Your task to perform on an android device: View the shopping cart on walmart. Add "logitech g903" to the cart on walmart Image 0: 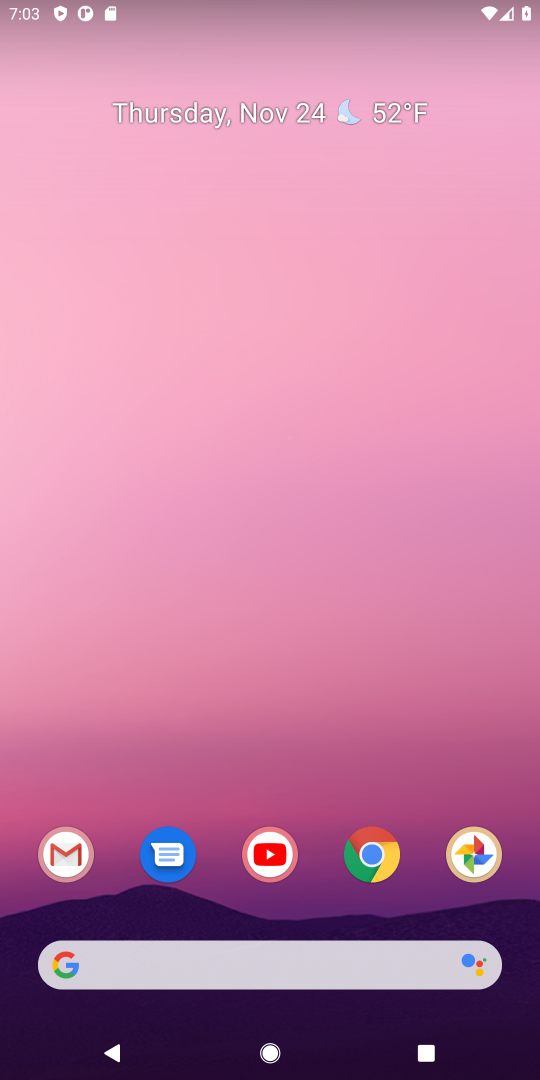
Step 0: click (368, 860)
Your task to perform on an android device: View the shopping cart on walmart. Add "logitech g903" to the cart on walmart Image 1: 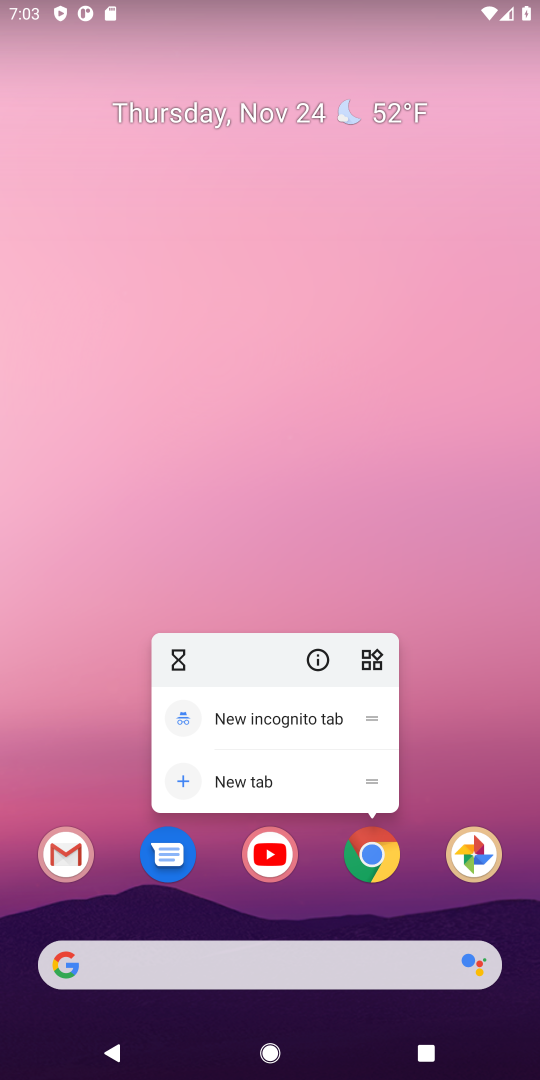
Step 1: click (368, 860)
Your task to perform on an android device: View the shopping cart on walmart. Add "logitech g903" to the cart on walmart Image 2: 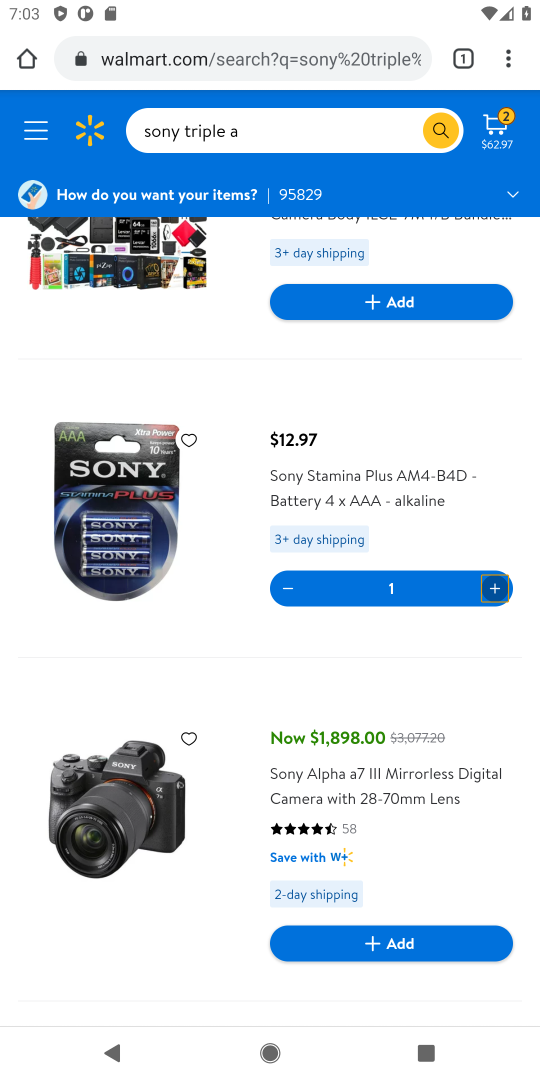
Step 2: click (500, 129)
Your task to perform on an android device: View the shopping cart on walmart. Add "logitech g903" to the cart on walmart Image 3: 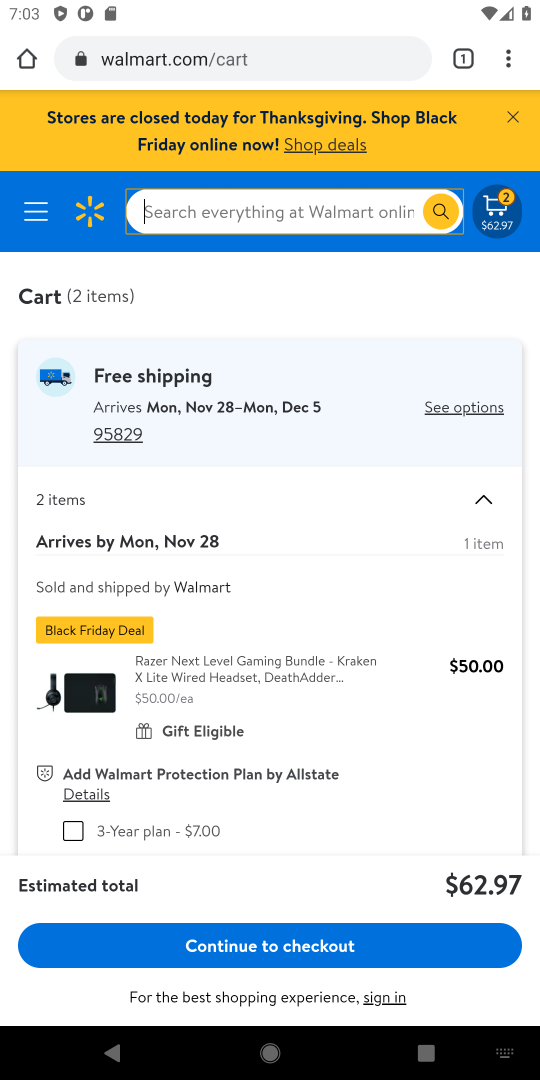
Step 3: type "logitech g903"
Your task to perform on an android device: View the shopping cart on walmart. Add "logitech g903" to the cart on walmart Image 4: 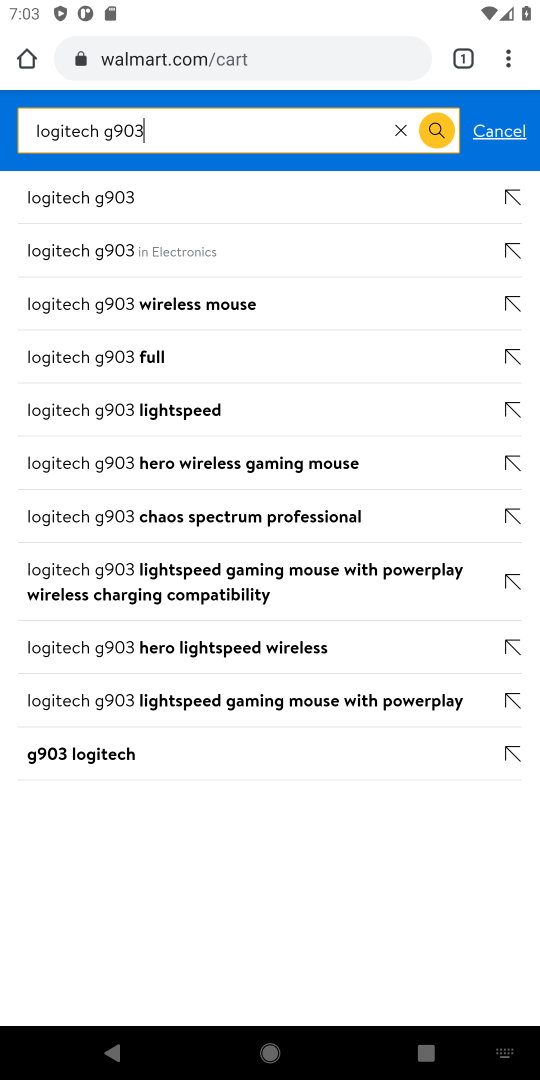
Step 4: click (117, 206)
Your task to perform on an android device: View the shopping cart on walmart. Add "logitech g903" to the cart on walmart Image 5: 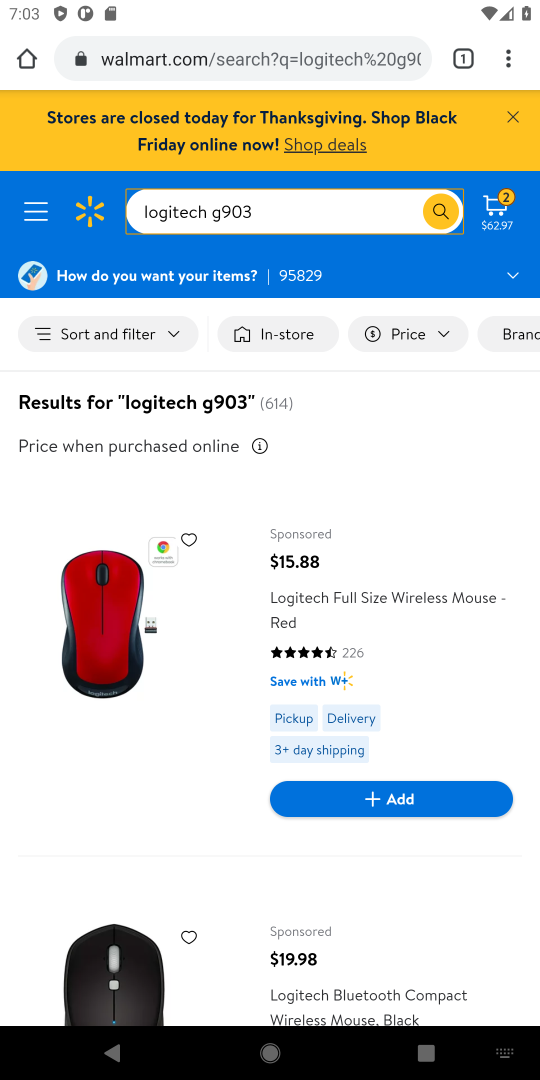
Step 5: drag from (234, 737) to (232, 491)
Your task to perform on an android device: View the shopping cart on walmart. Add "logitech g903" to the cart on walmart Image 6: 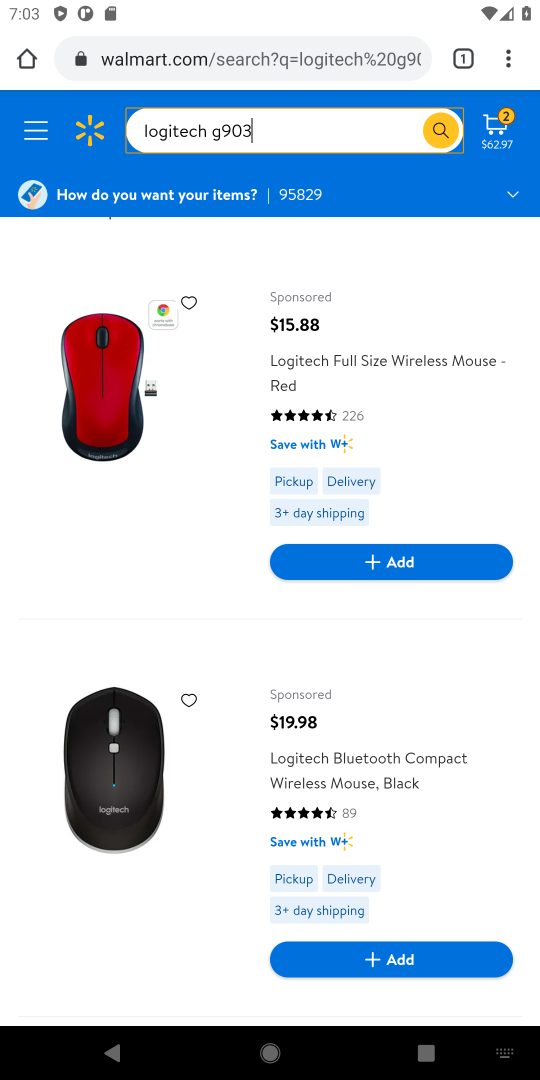
Step 6: drag from (161, 780) to (175, 493)
Your task to perform on an android device: View the shopping cart on walmart. Add "logitech g903" to the cart on walmart Image 7: 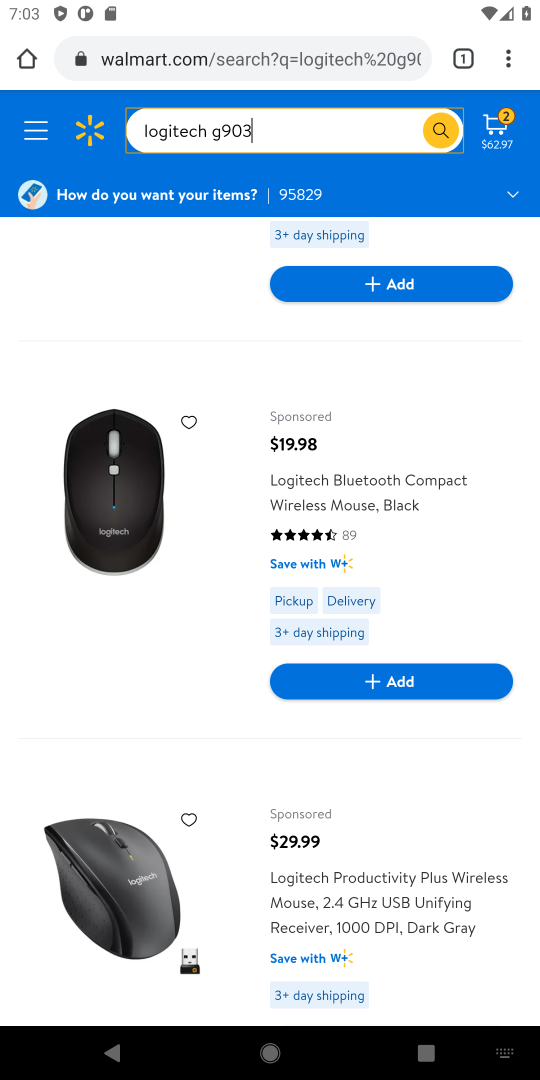
Step 7: drag from (173, 830) to (155, 456)
Your task to perform on an android device: View the shopping cart on walmart. Add "logitech g903" to the cart on walmart Image 8: 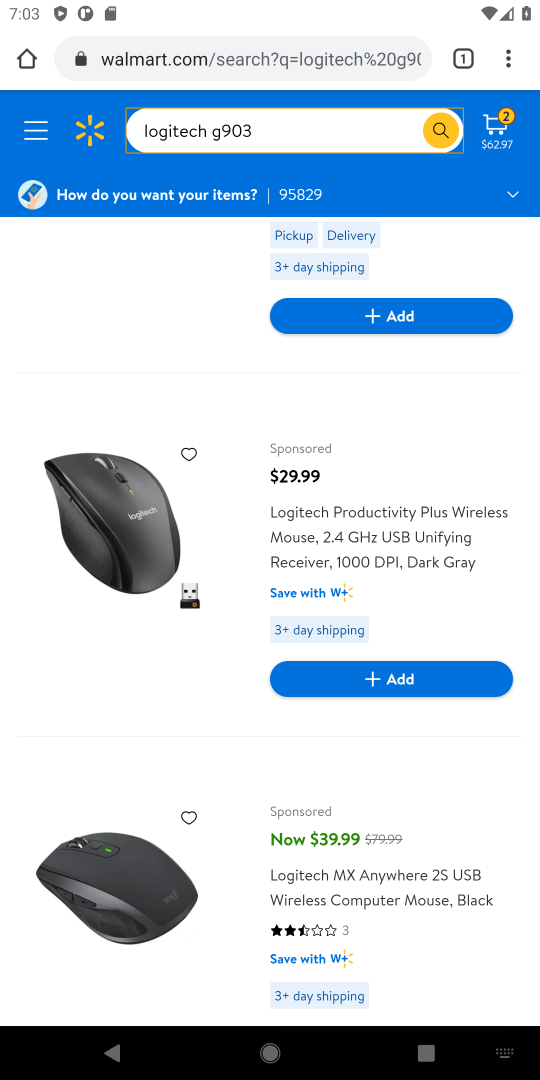
Step 8: drag from (199, 881) to (158, 608)
Your task to perform on an android device: View the shopping cart on walmart. Add "logitech g903" to the cart on walmart Image 9: 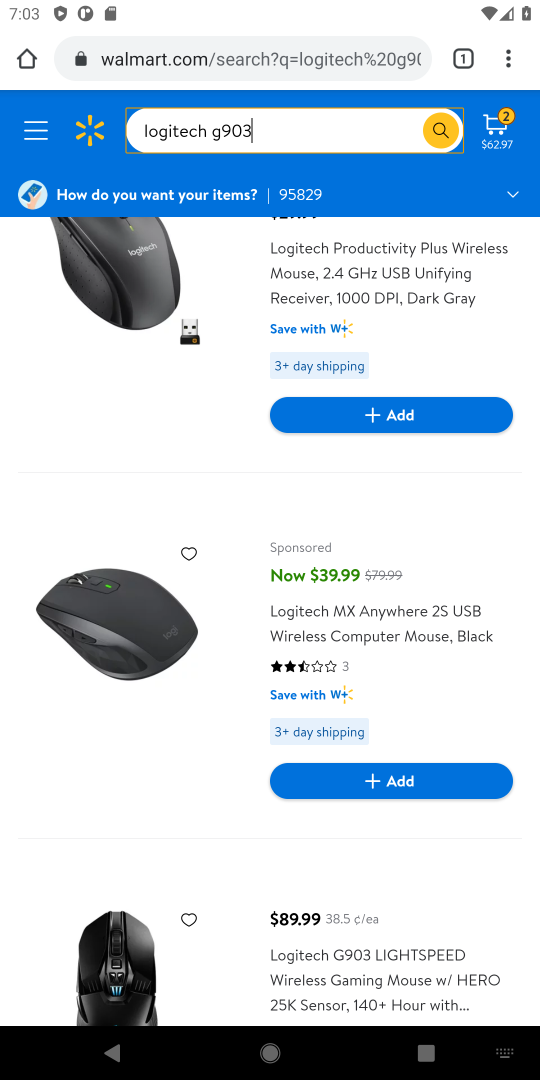
Step 9: drag from (168, 918) to (150, 561)
Your task to perform on an android device: View the shopping cart on walmart. Add "logitech g903" to the cart on walmart Image 10: 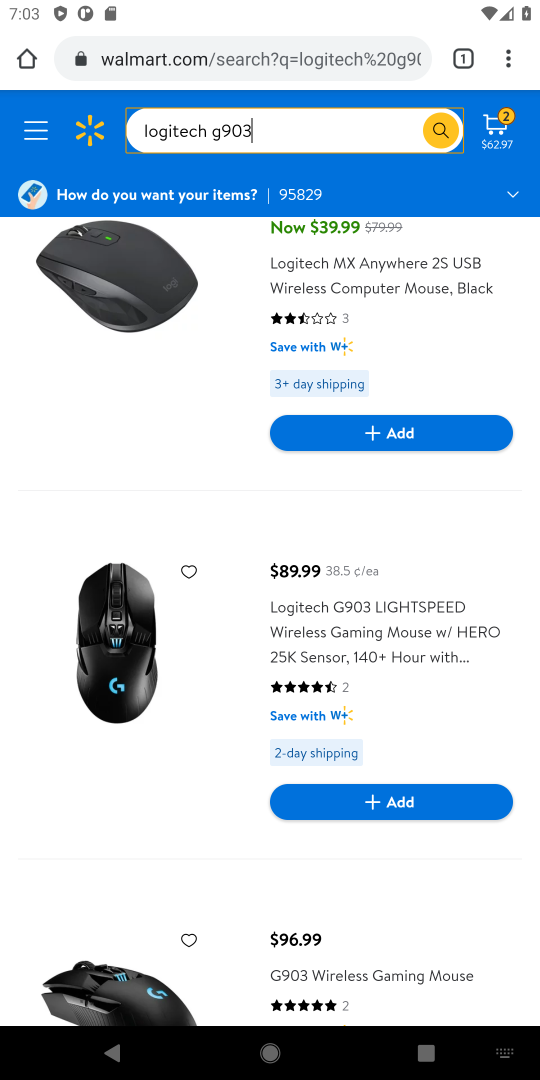
Step 10: click (409, 799)
Your task to perform on an android device: View the shopping cart on walmart. Add "logitech g903" to the cart on walmart Image 11: 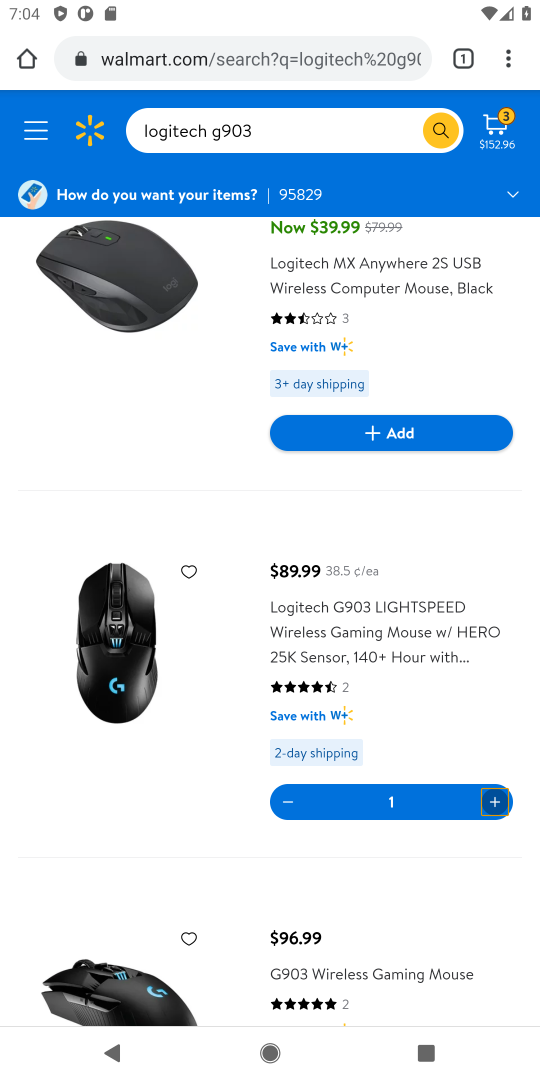
Step 11: task complete